Your task to perform on an android device: Open calendar and show me the first week of next month Image 0: 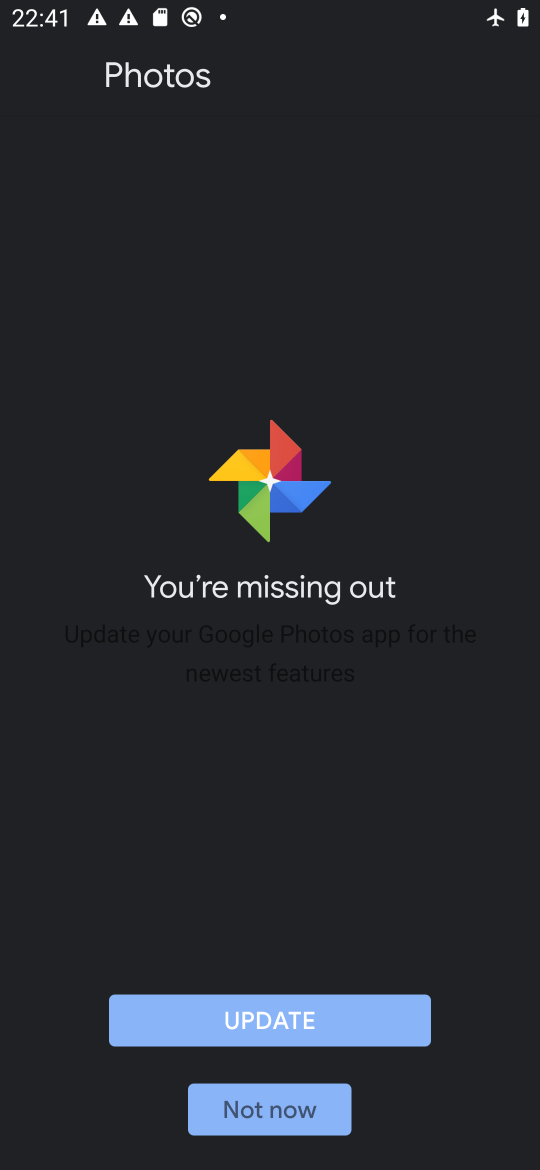
Step 0: press home button
Your task to perform on an android device: Open calendar and show me the first week of next month Image 1: 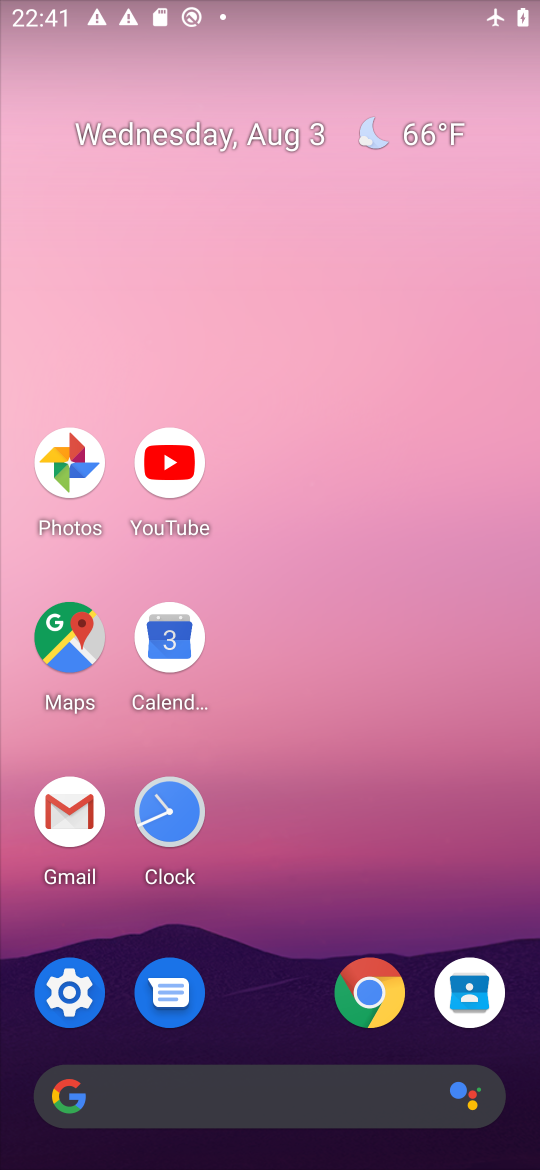
Step 1: click (167, 635)
Your task to perform on an android device: Open calendar and show me the first week of next month Image 2: 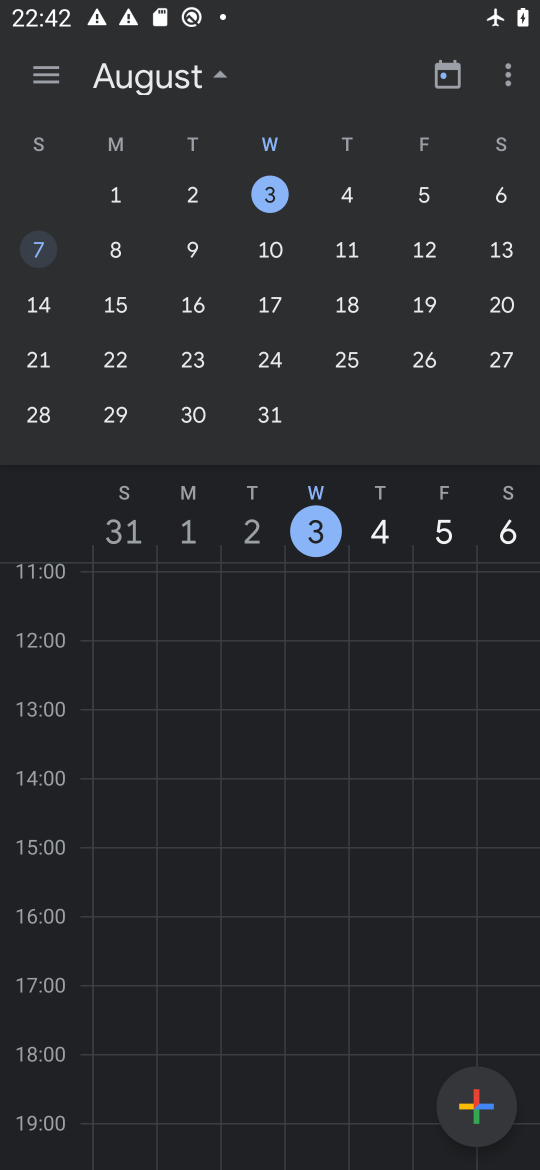
Step 2: drag from (499, 338) to (14, 319)
Your task to perform on an android device: Open calendar and show me the first week of next month Image 3: 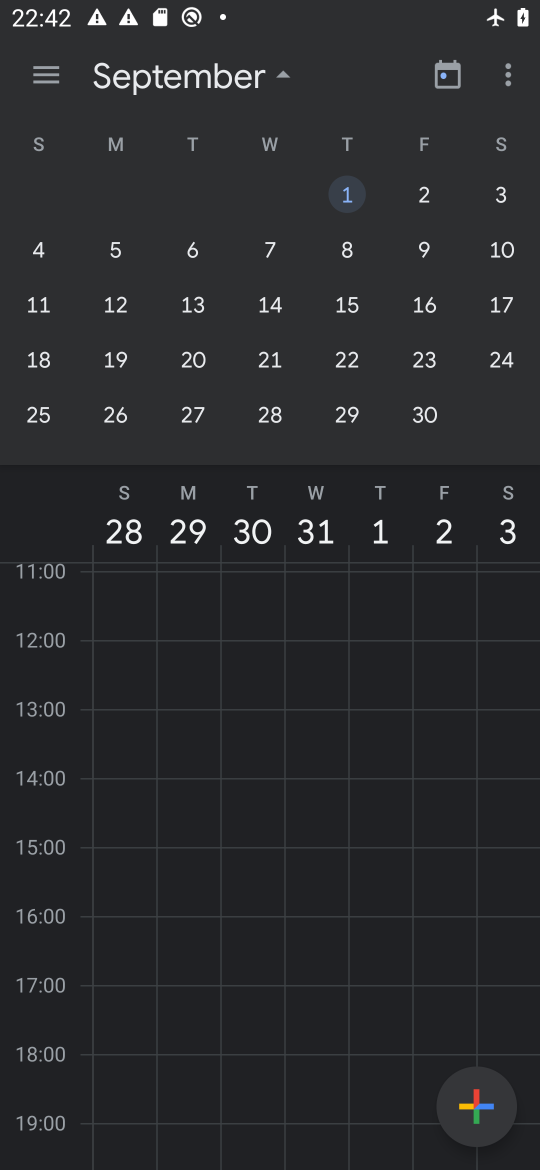
Step 3: click (353, 197)
Your task to perform on an android device: Open calendar and show me the first week of next month Image 4: 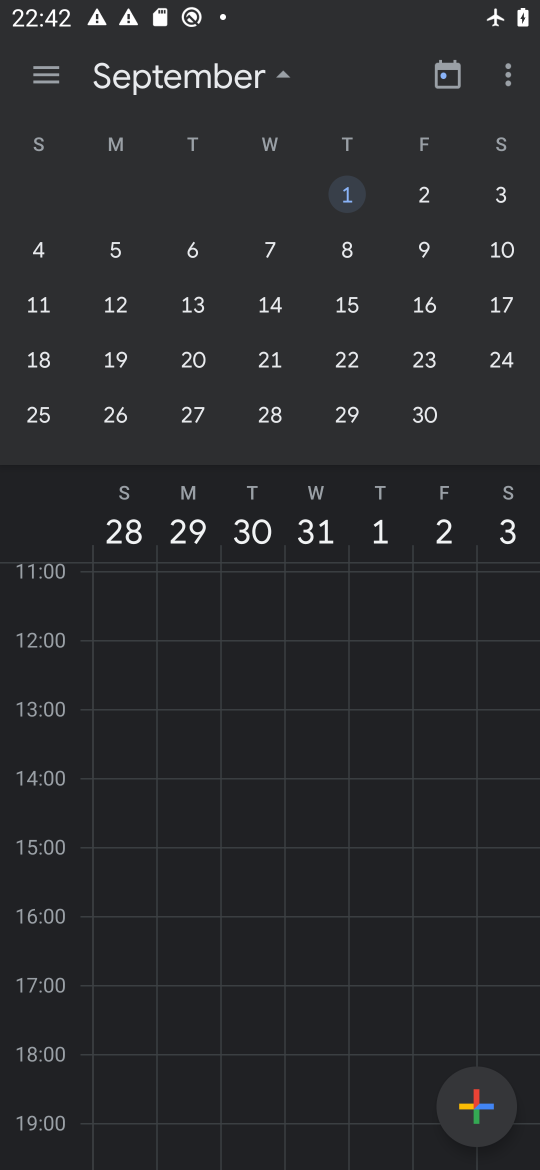
Step 4: task complete